Your task to perform on an android device: toggle pop-ups in chrome Image 0: 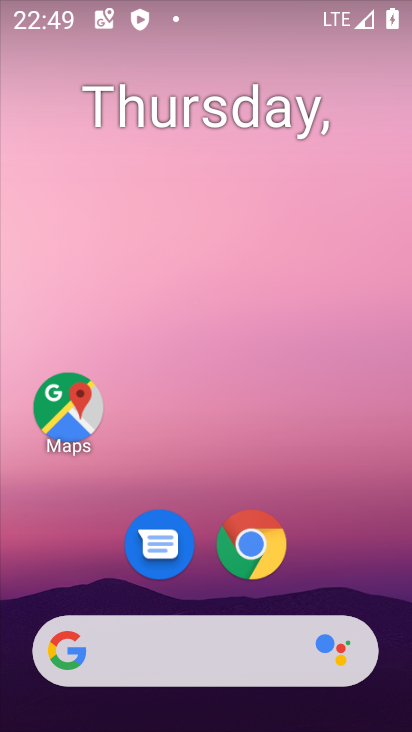
Step 0: drag from (312, 484) to (200, 193)
Your task to perform on an android device: toggle pop-ups in chrome Image 1: 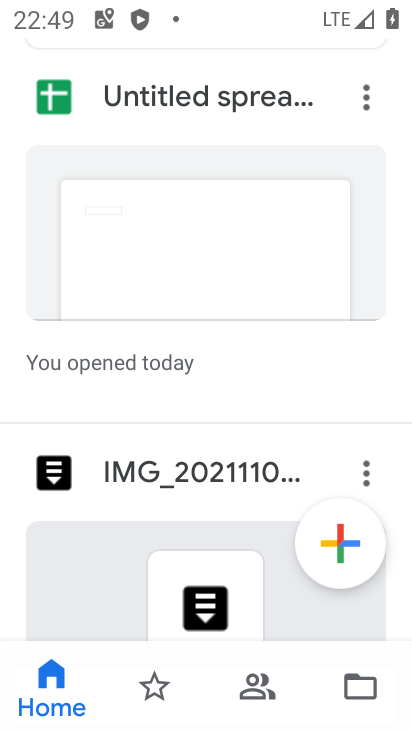
Step 1: press home button
Your task to perform on an android device: toggle pop-ups in chrome Image 2: 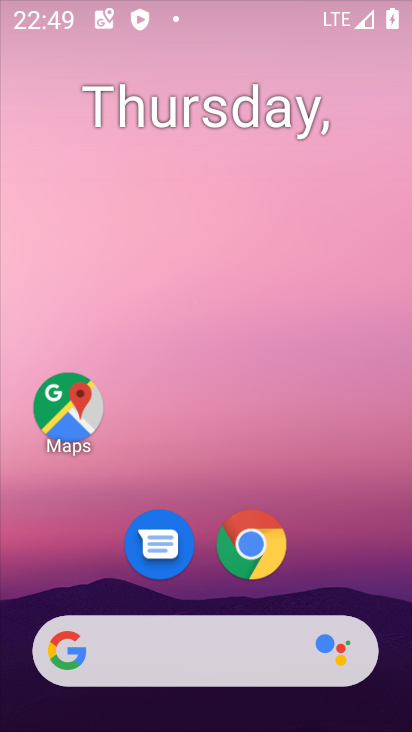
Step 2: click (252, 551)
Your task to perform on an android device: toggle pop-ups in chrome Image 3: 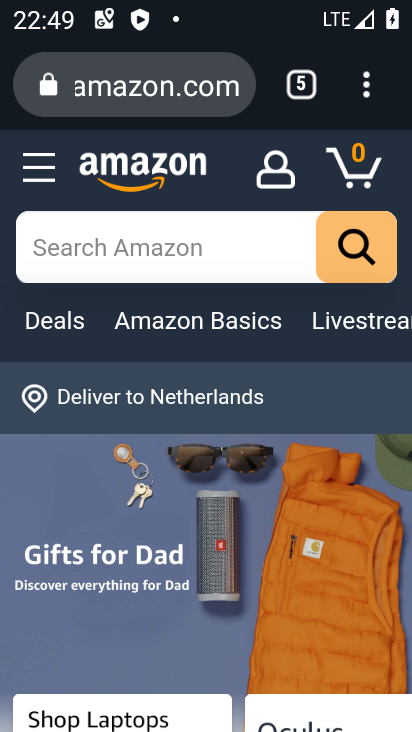
Step 3: click (362, 90)
Your task to perform on an android device: toggle pop-ups in chrome Image 4: 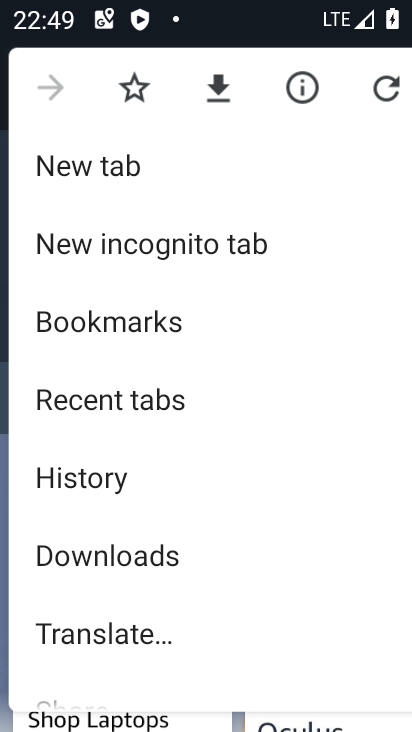
Step 4: drag from (175, 602) to (185, 138)
Your task to perform on an android device: toggle pop-ups in chrome Image 5: 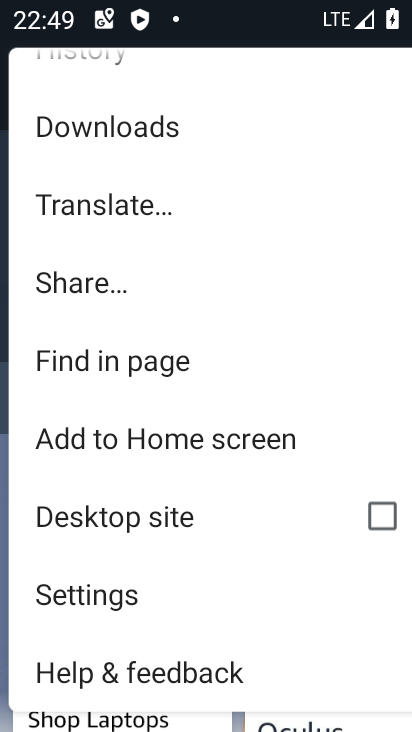
Step 5: click (84, 598)
Your task to perform on an android device: toggle pop-ups in chrome Image 6: 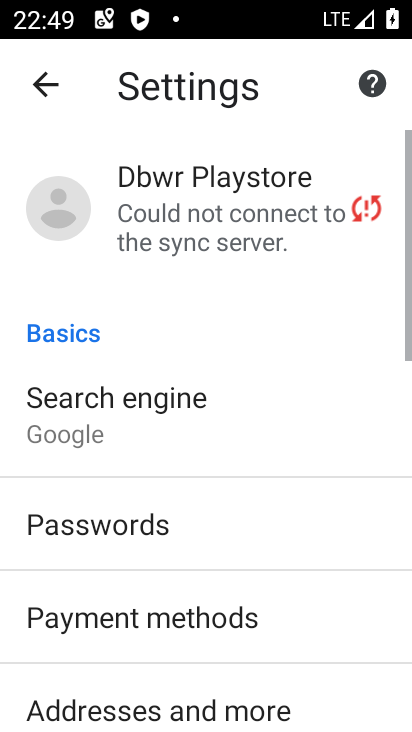
Step 6: drag from (149, 654) to (173, 101)
Your task to perform on an android device: toggle pop-ups in chrome Image 7: 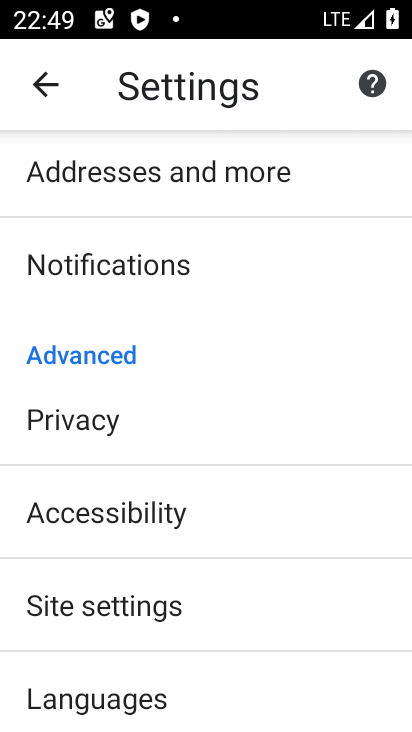
Step 7: click (99, 602)
Your task to perform on an android device: toggle pop-ups in chrome Image 8: 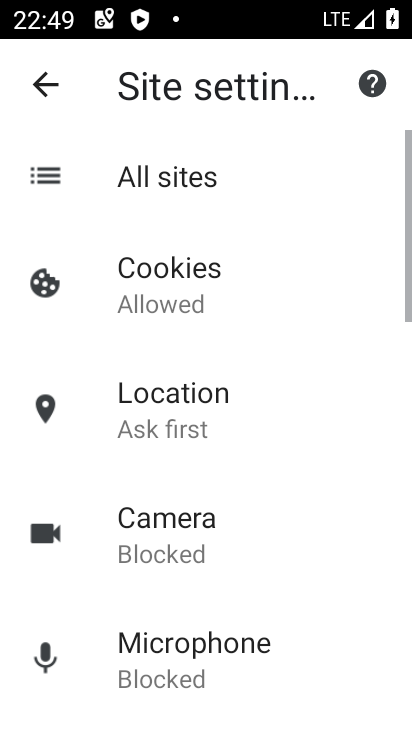
Step 8: drag from (176, 670) to (176, 211)
Your task to perform on an android device: toggle pop-ups in chrome Image 9: 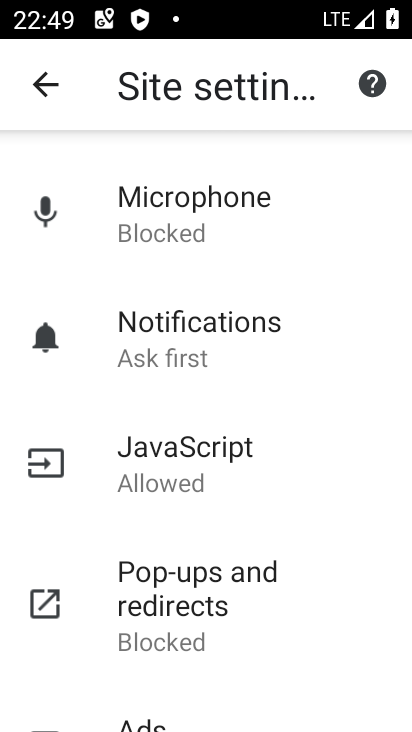
Step 9: click (146, 607)
Your task to perform on an android device: toggle pop-ups in chrome Image 10: 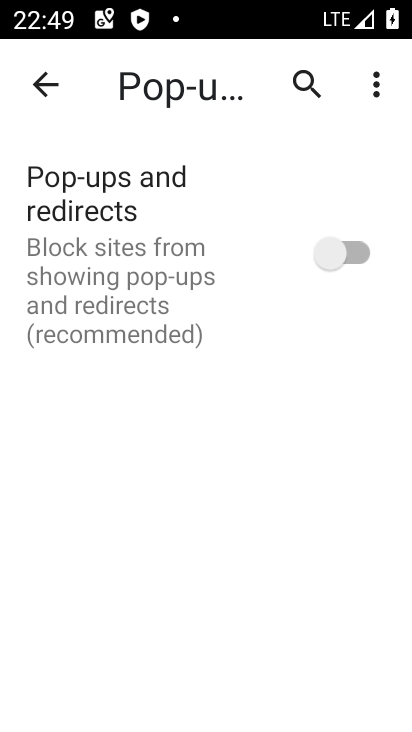
Step 10: click (346, 259)
Your task to perform on an android device: toggle pop-ups in chrome Image 11: 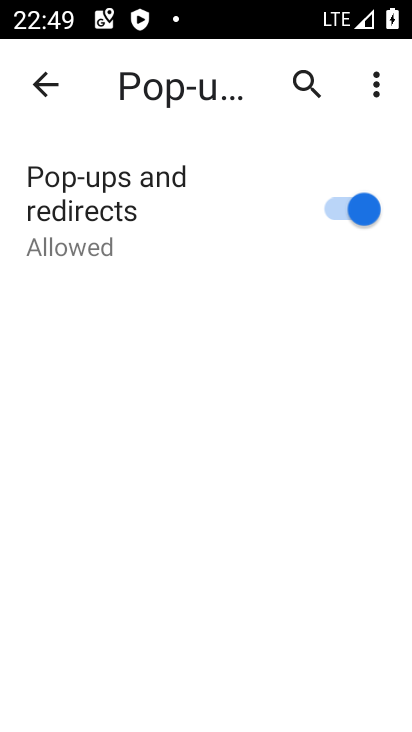
Step 11: task complete